Your task to perform on an android device: Go to ESPN.com Image 0: 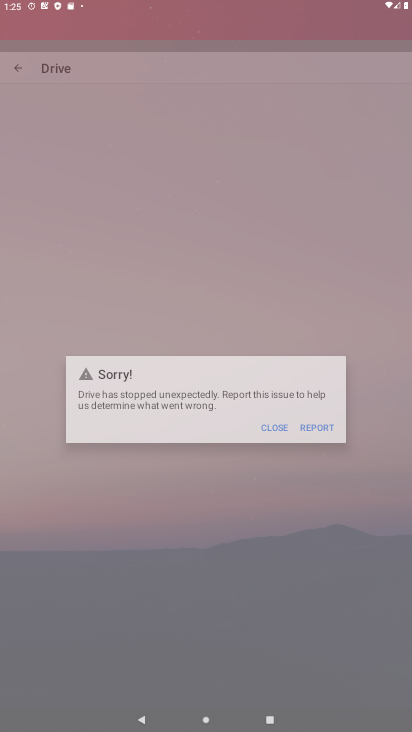
Step 0: drag from (16, 8) to (10, 432)
Your task to perform on an android device: Go to ESPN.com Image 1: 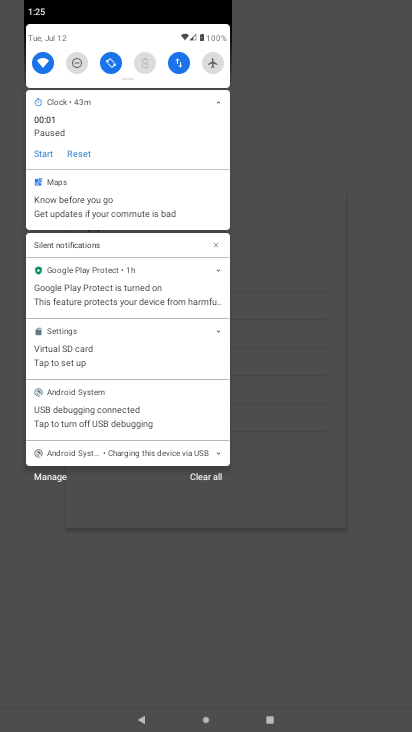
Step 1: press home button
Your task to perform on an android device: Go to ESPN.com Image 2: 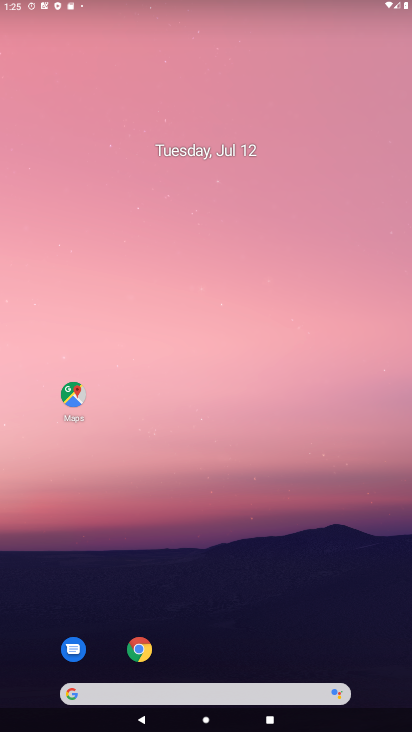
Step 2: drag from (258, 620) to (348, 42)
Your task to perform on an android device: Go to ESPN.com Image 3: 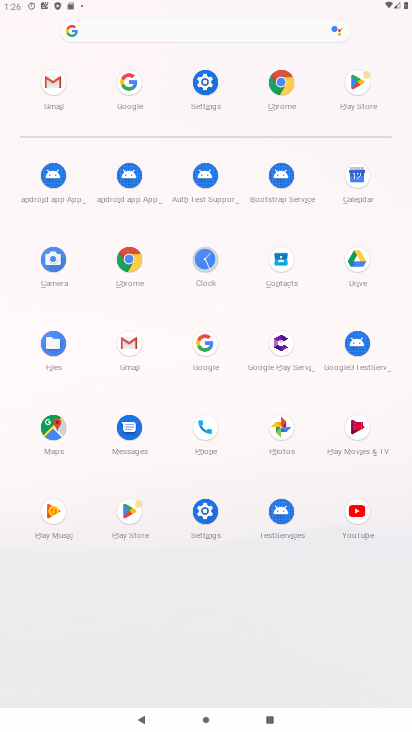
Step 3: click (198, 346)
Your task to perform on an android device: Go to ESPN.com Image 4: 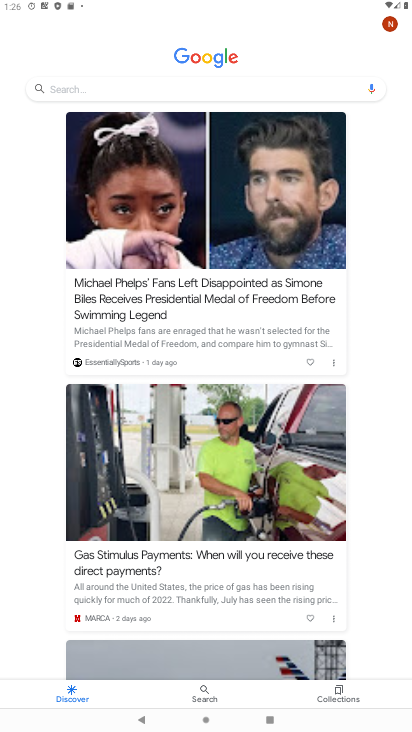
Step 4: click (62, 91)
Your task to perform on an android device: Go to ESPN.com Image 5: 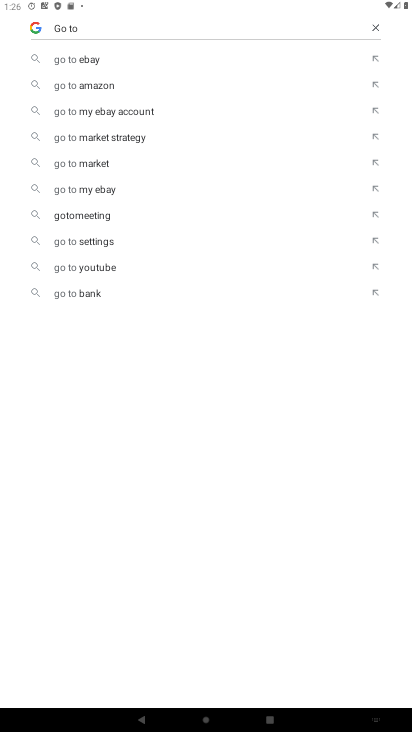
Step 5: click (371, 28)
Your task to perform on an android device: Go to ESPN.com Image 6: 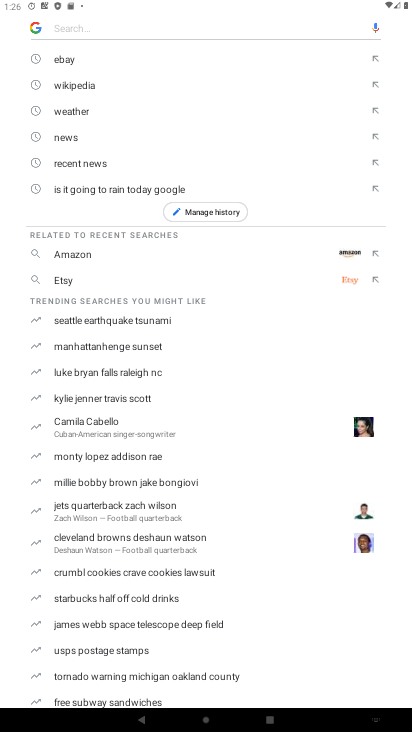
Step 6: type "ESPN.com"
Your task to perform on an android device: Go to ESPN.com Image 7: 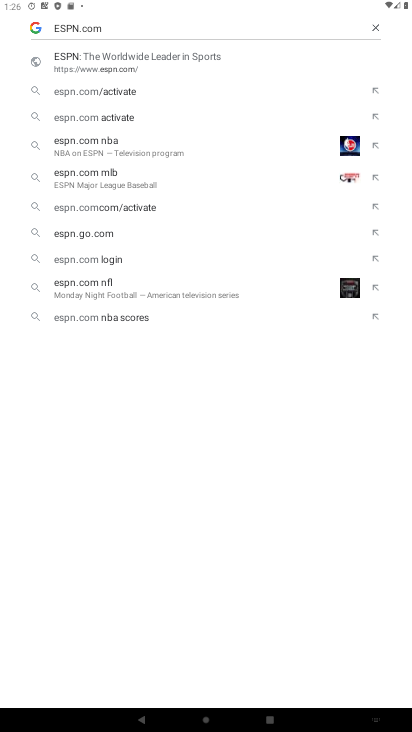
Step 7: click (116, 67)
Your task to perform on an android device: Go to ESPN.com Image 8: 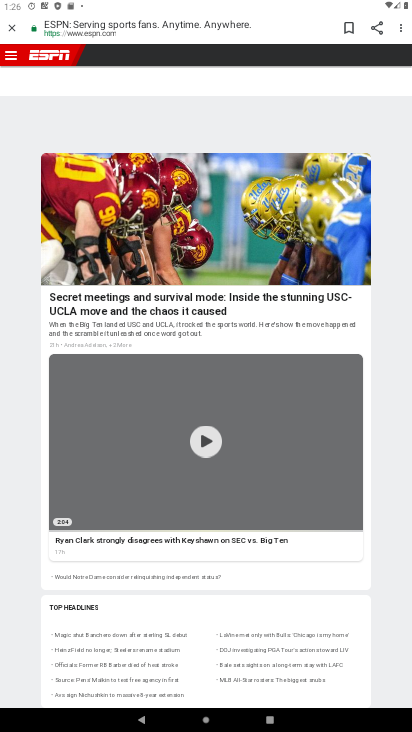
Step 8: task complete